Your task to perform on an android device: Search for "asus zenbook" on target, select the first entry, and add it to the cart. Image 0: 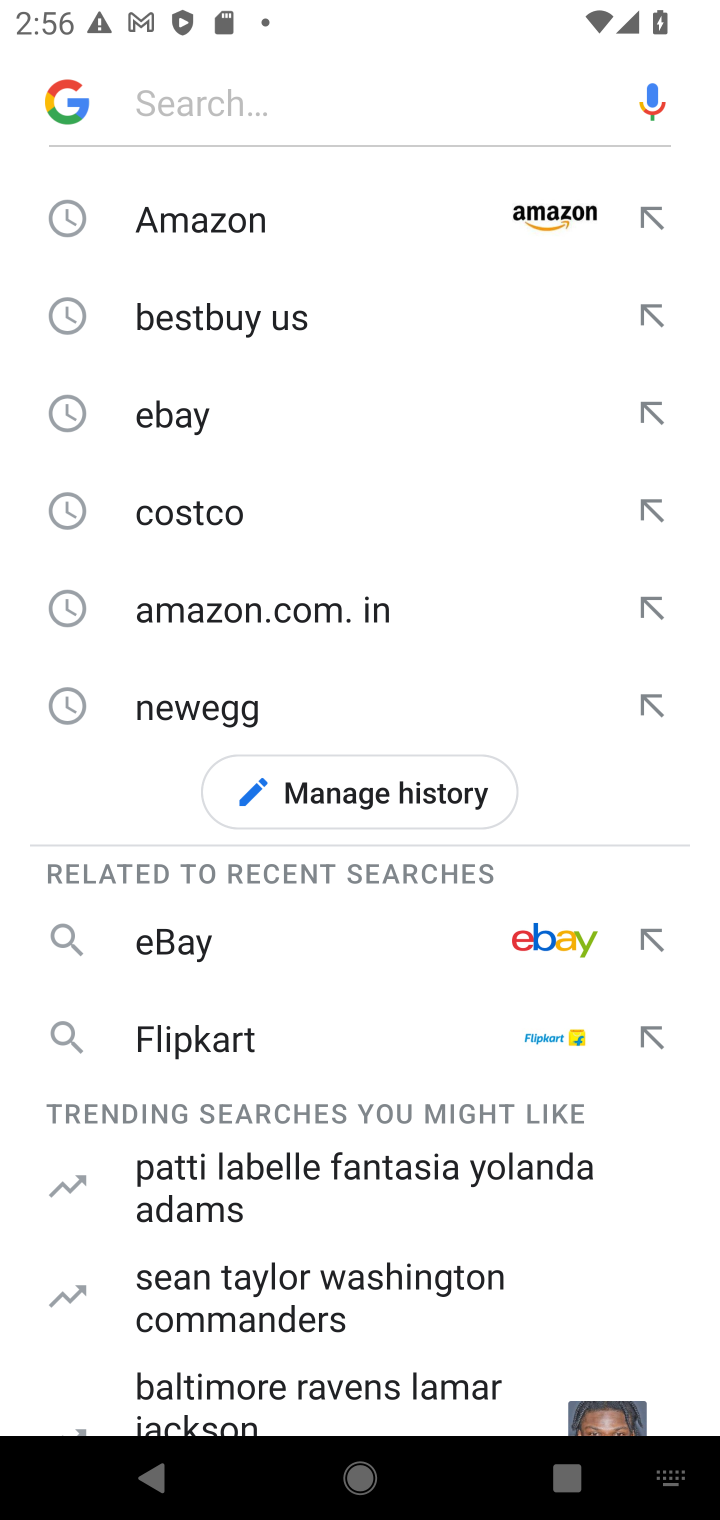
Step 0: click (381, 228)
Your task to perform on an android device: Search for "asus zenbook" on target, select the first entry, and add it to the cart. Image 1: 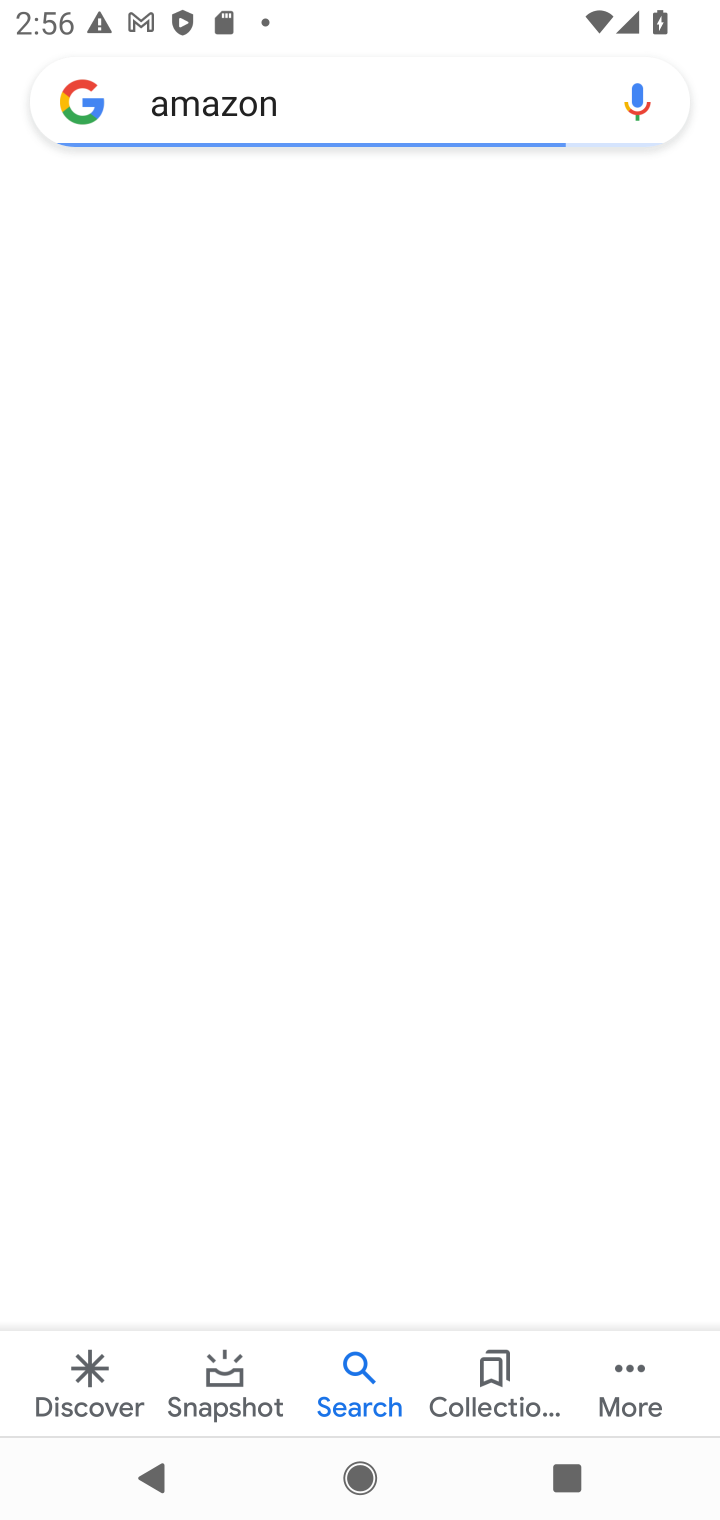
Step 1: task complete